Your task to perform on an android device: Open Amazon Image 0: 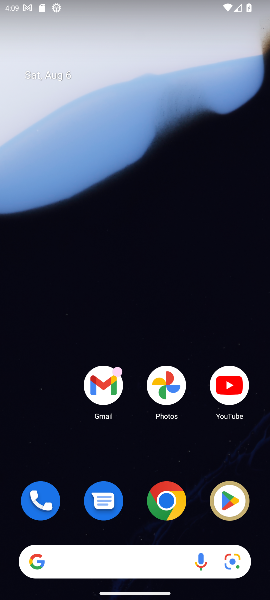
Step 0: click (170, 501)
Your task to perform on an android device: Open Amazon Image 1: 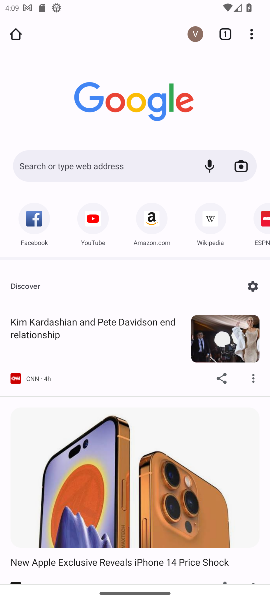
Step 1: click (159, 232)
Your task to perform on an android device: Open Amazon Image 2: 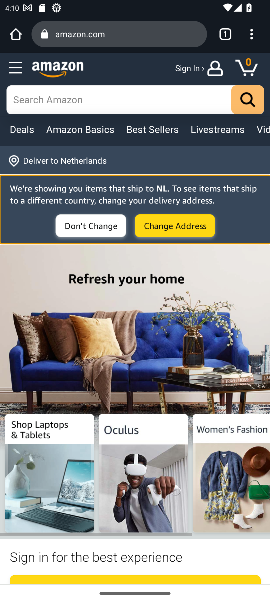
Step 2: task complete